Your task to perform on an android device: open sync settings in chrome Image 0: 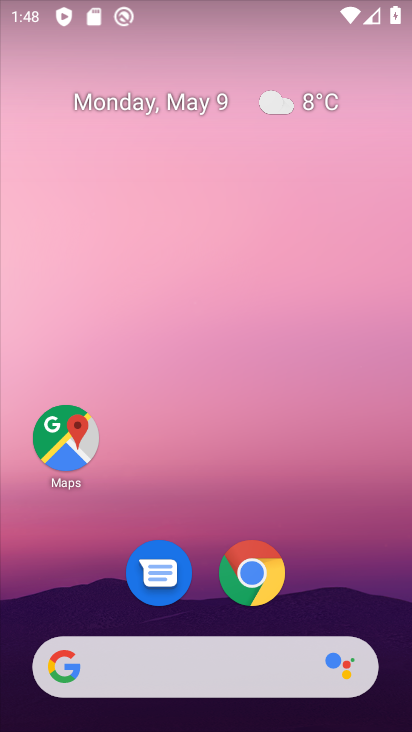
Step 0: click (253, 575)
Your task to perform on an android device: open sync settings in chrome Image 1: 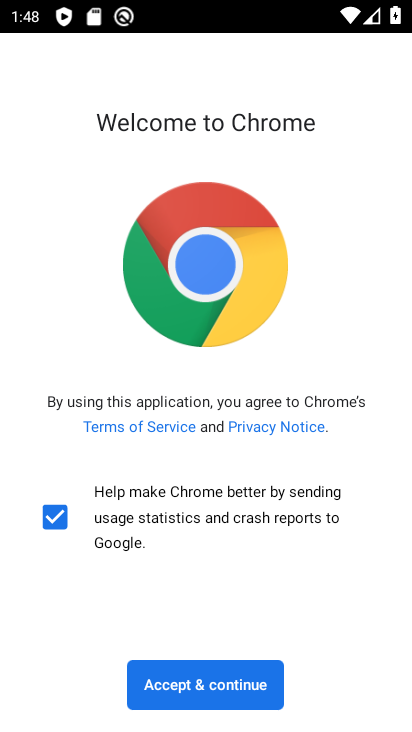
Step 1: click (210, 679)
Your task to perform on an android device: open sync settings in chrome Image 2: 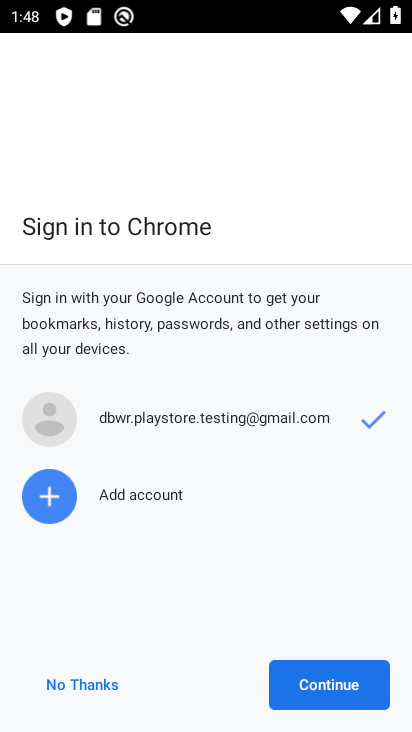
Step 2: click (348, 676)
Your task to perform on an android device: open sync settings in chrome Image 3: 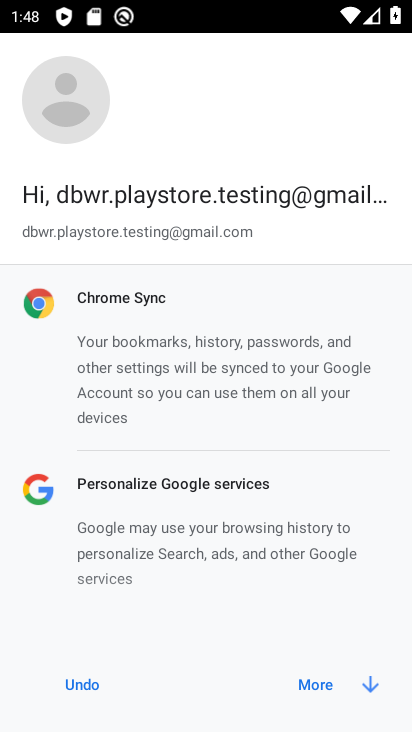
Step 3: click (317, 683)
Your task to perform on an android device: open sync settings in chrome Image 4: 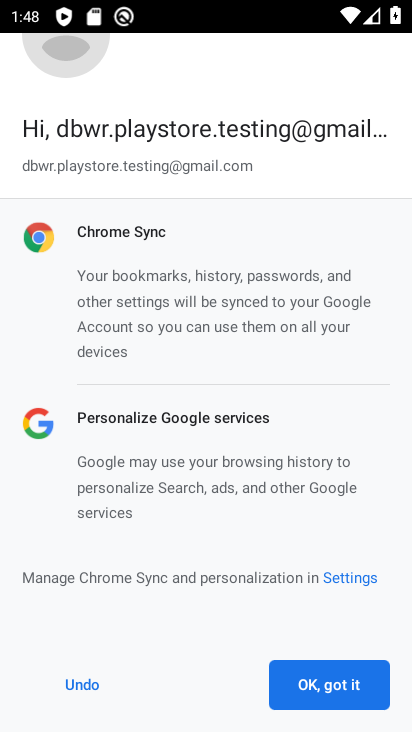
Step 4: click (317, 683)
Your task to perform on an android device: open sync settings in chrome Image 5: 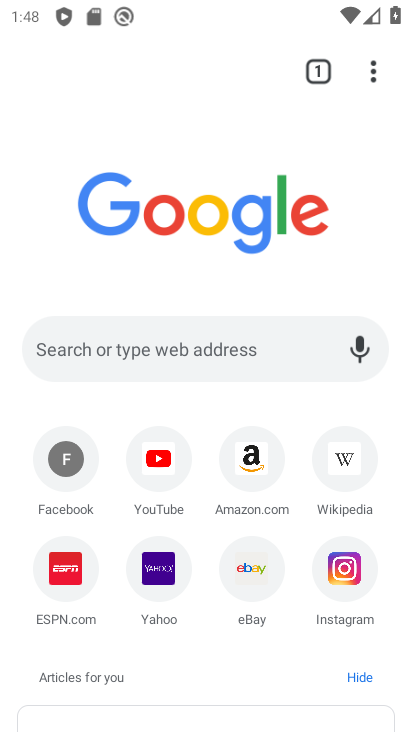
Step 5: click (365, 72)
Your task to perform on an android device: open sync settings in chrome Image 6: 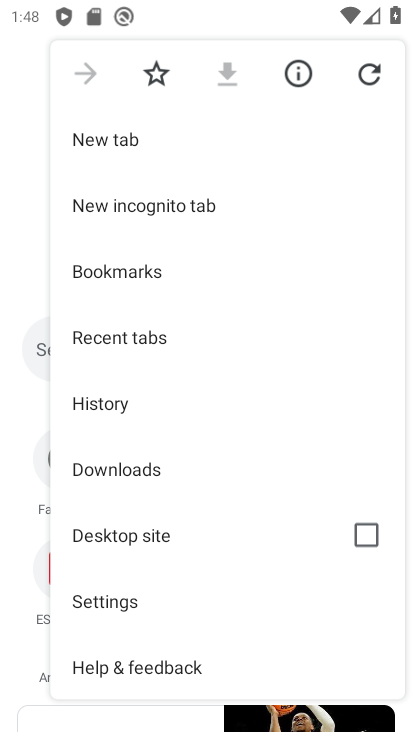
Step 6: drag from (212, 657) to (232, 126)
Your task to perform on an android device: open sync settings in chrome Image 7: 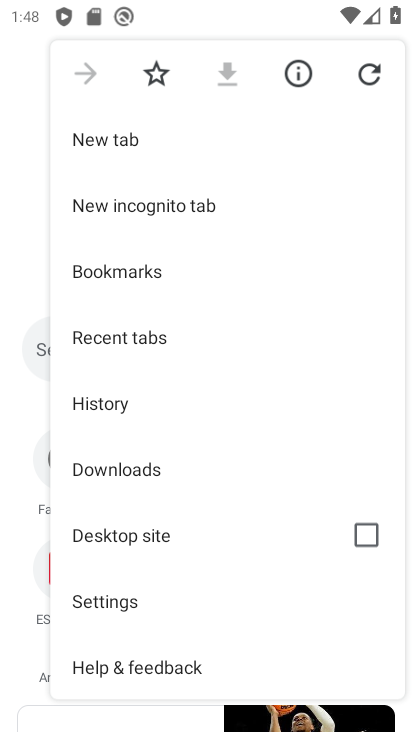
Step 7: drag from (180, 614) to (183, 384)
Your task to perform on an android device: open sync settings in chrome Image 8: 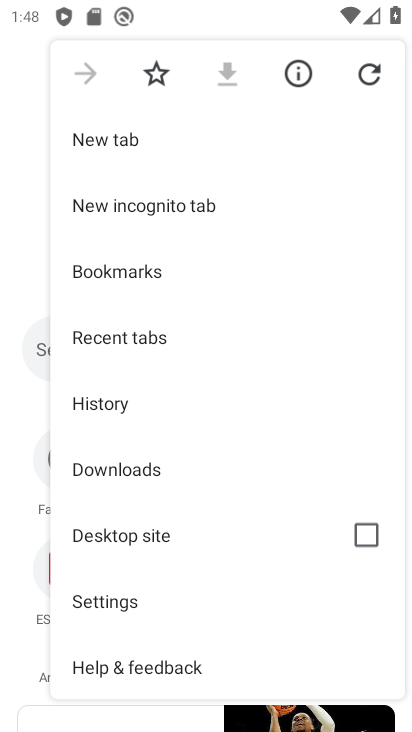
Step 8: click (112, 604)
Your task to perform on an android device: open sync settings in chrome Image 9: 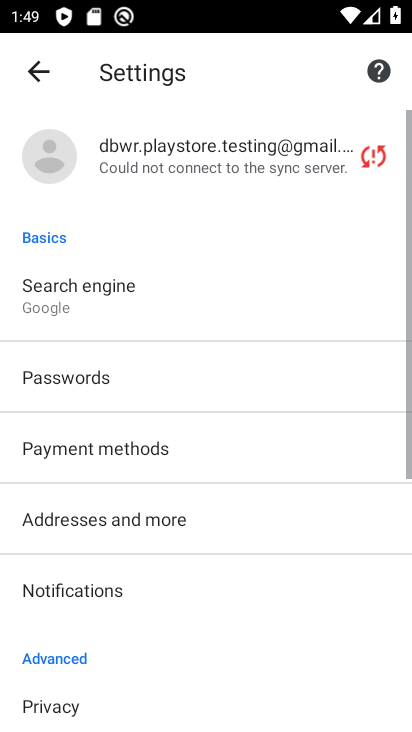
Step 9: drag from (171, 611) to (178, 235)
Your task to perform on an android device: open sync settings in chrome Image 10: 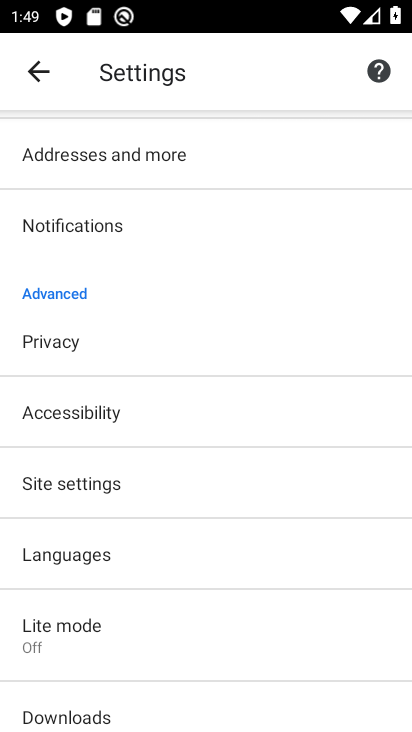
Step 10: click (92, 490)
Your task to perform on an android device: open sync settings in chrome Image 11: 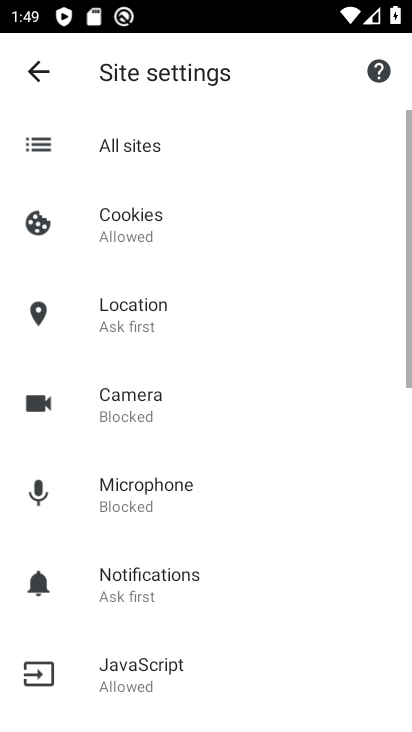
Step 11: drag from (294, 554) to (322, 205)
Your task to perform on an android device: open sync settings in chrome Image 12: 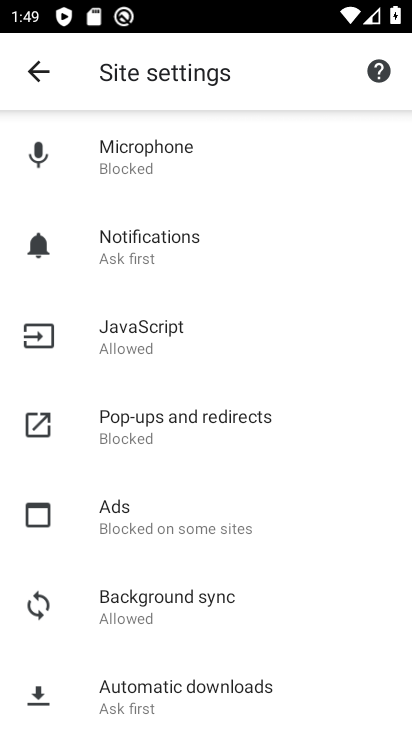
Step 12: click (192, 598)
Your task to perform on an android device: open sync settings in chrome Image 13: 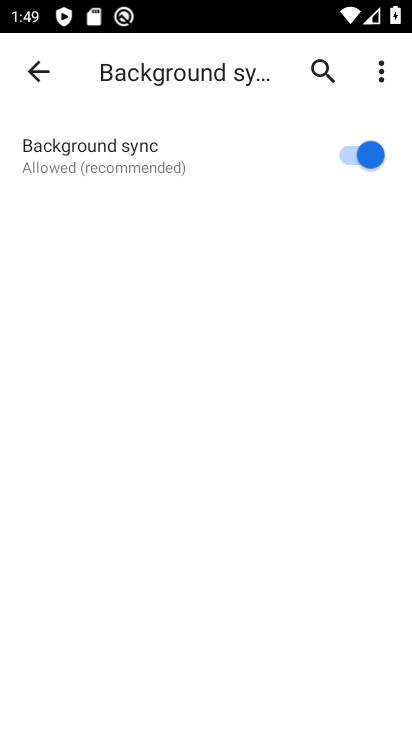
Step 13: task complete